Your task to perform on an android device: show emergency info Image 0: 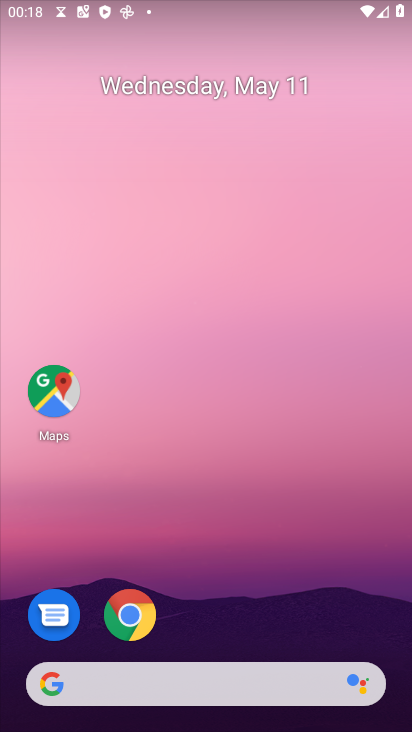
Step 0: drag from (241, 594) to (230, 79)
Your task to perform on an android device: show emergency info Image 1: 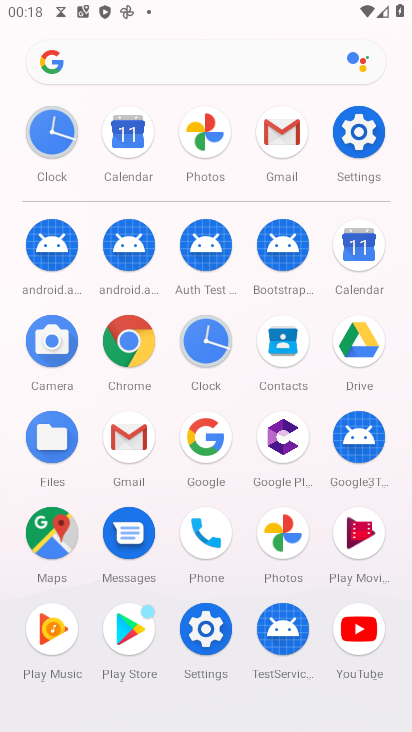
Step 1: click (360, 130)
Your task to perform on an android device: show emergency info Image 2: 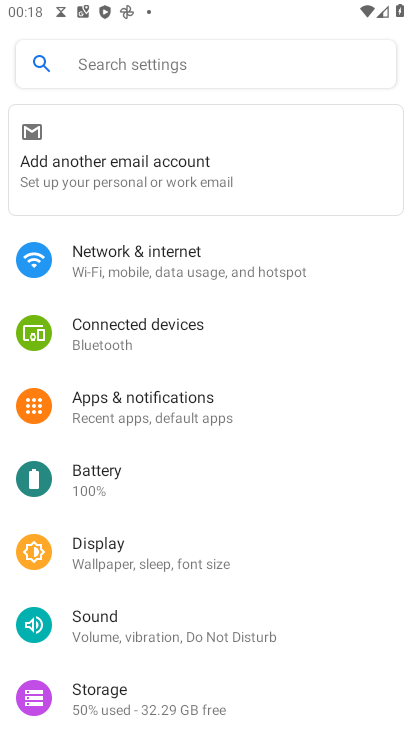
Step 2: drag from (180, 501) to (249, 390)
Your task to perform on an android device: show emergency info Image 3: 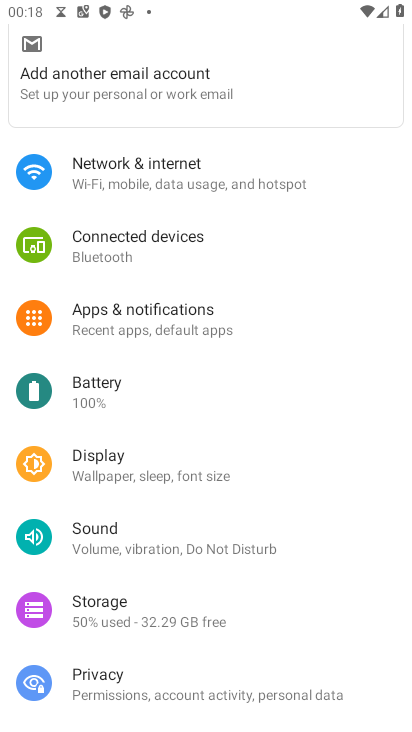
Step 3: drag from (177, 550) to (232, 458)
Your task to perform on an android device: show emergency info Image 4: 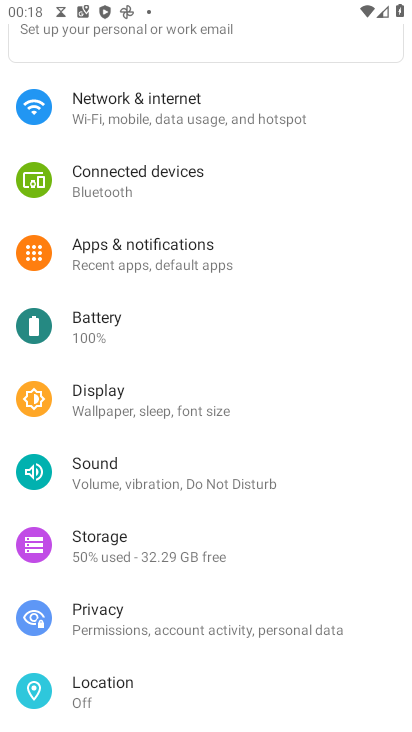
Step 4: drag from (159, 570) to (267, 434)
Your task to perform on an android device: show emergency info Image 5: 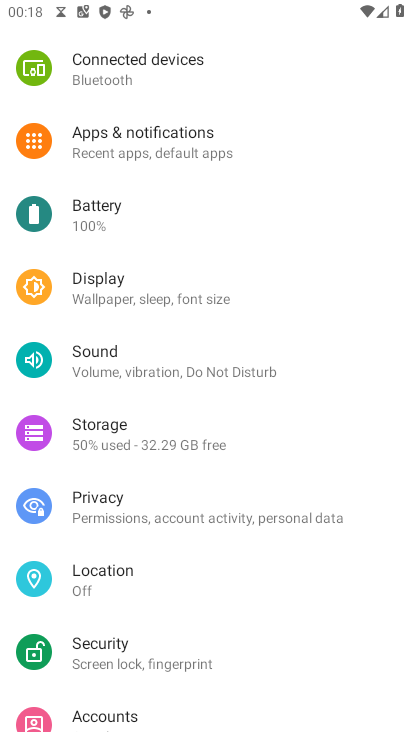
Step 5: drag from (197, 591) to (304, 435)
Your task to perform on an android device: show emergency info Image 6: 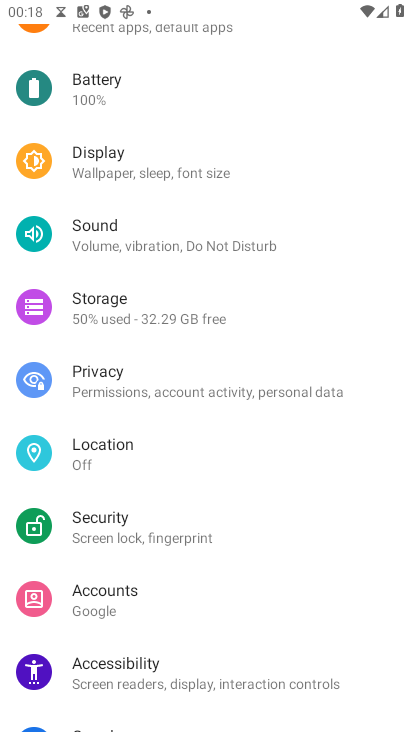
Step 6: drag from (173, 631) to (302, 424)
Your task to perform on an android device: show emergency info Image 7: 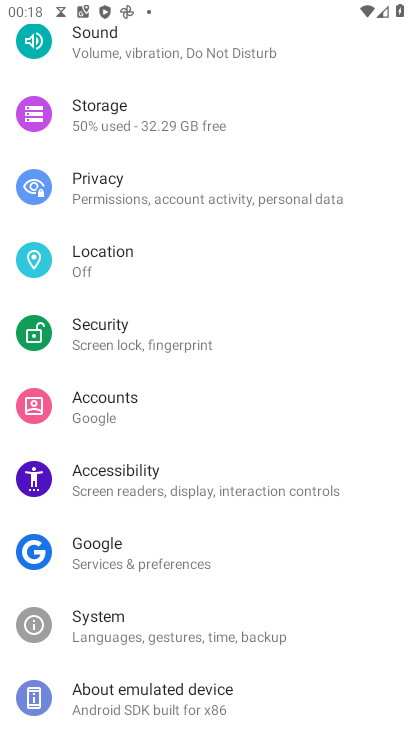
Step 7: drag from (215, 615) to (337, 447)
Your task to perform on an android device: show emergency info Image 8: 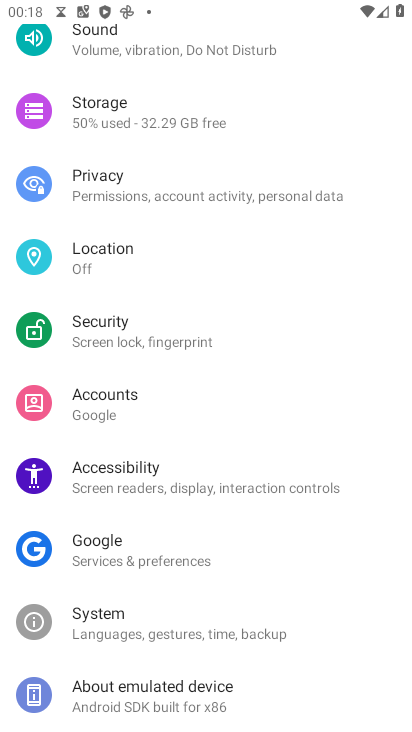
Step 8: click (146, 687)
Your task to perform on an android device: show emergency info Image 9: 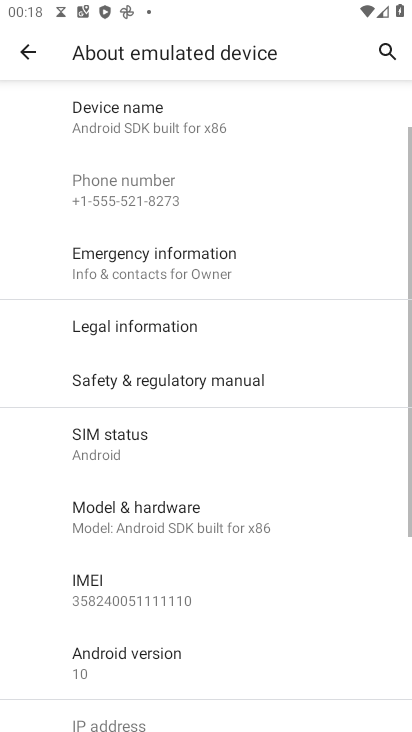
Step 9: click (137, 252)
Your task to perform on an android device: show emergency info Image 10: 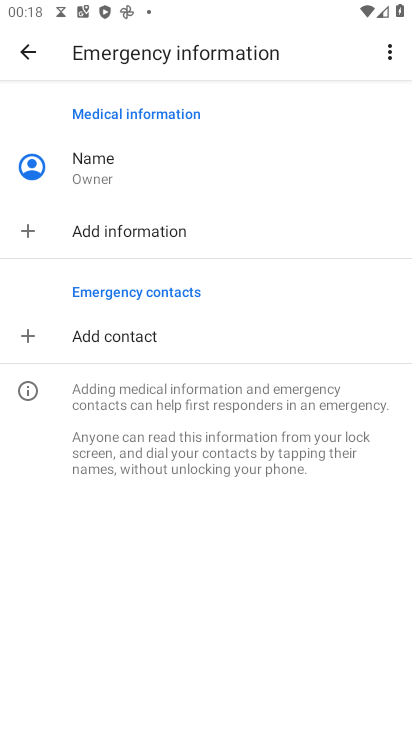
Step 10: task complete